Your task to perform on an android device: change the clock display to digital Image 0: 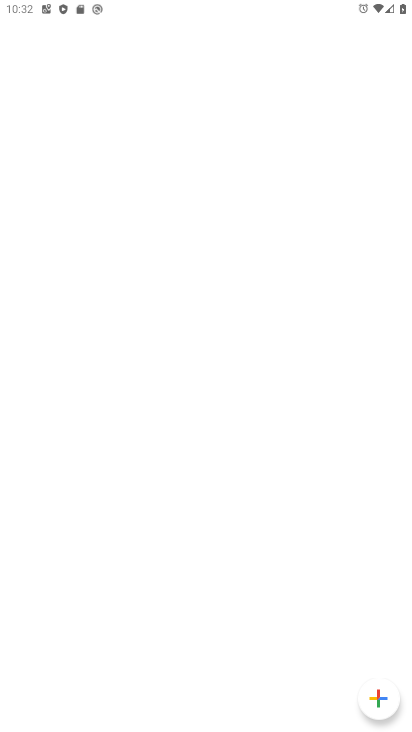
Step 0: press home button
Your task to perform on an android device: change the clock display to digital Image 1: 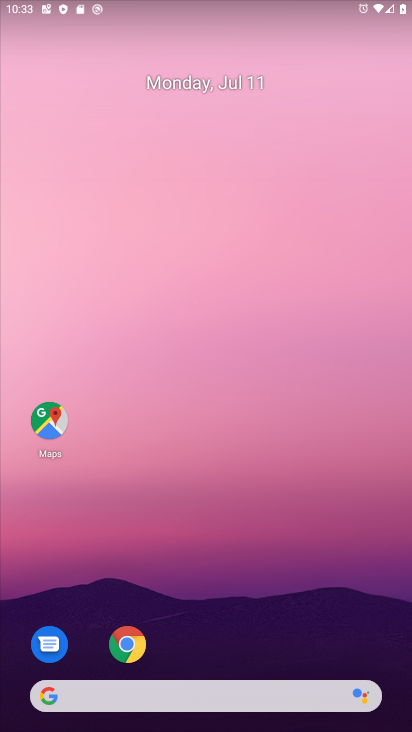
Step 1: drag from (214, 664) to (227, 42)
Your task to perform on an android device: change the clock display to digital Image 2: 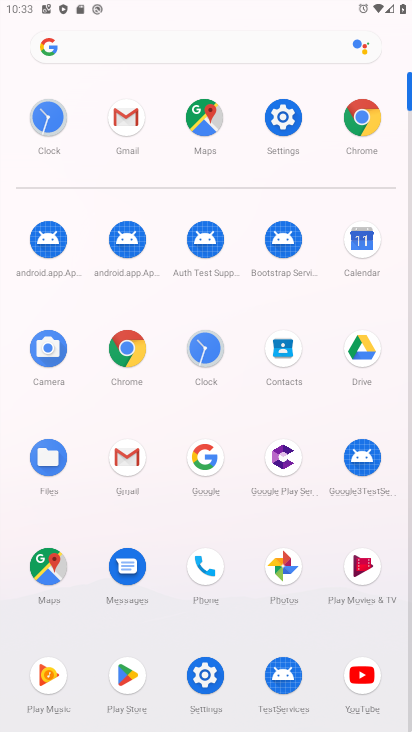
Step 2: click (201, 338)
Your task to perform on an android device: change the clock display to digital Image 3: 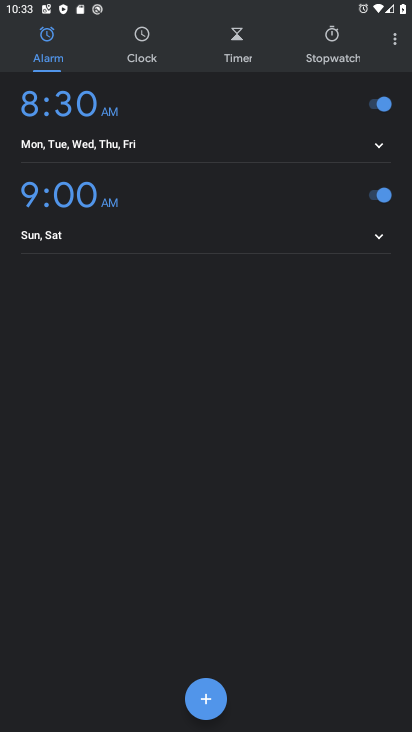
Step 3: click (390, 42)
Your task to perform on an android device: change the clock display to digital Image 4: 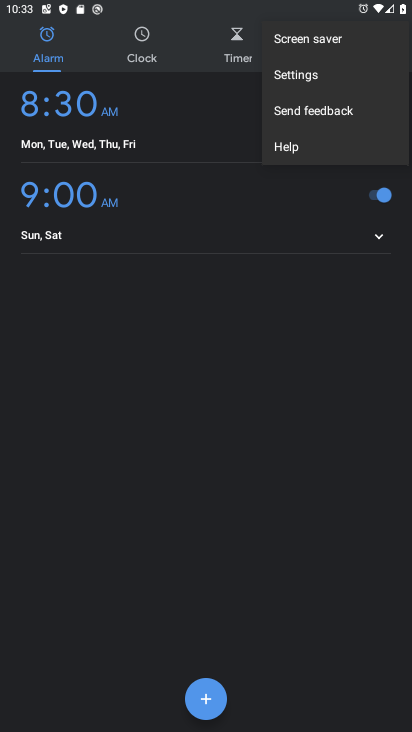
Step 4: click (322, 79)
Your task to perform on an android device: change the clock display to digital Image 5: 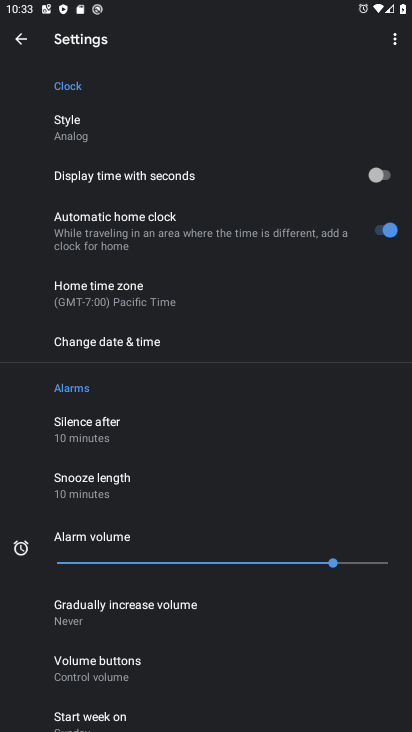
Step 5: click (120, 131)
Your task to perform on an android device: change the clock display to digital Image 6: 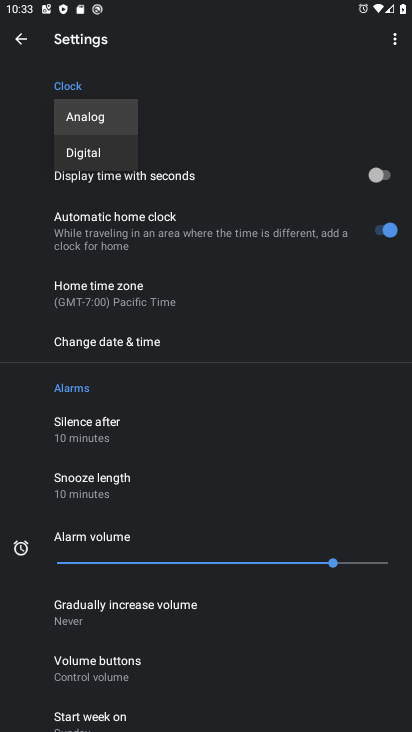
Step 6: click (110, 150)
Your task to perform on an android device: change the clock display to digital Image 7: 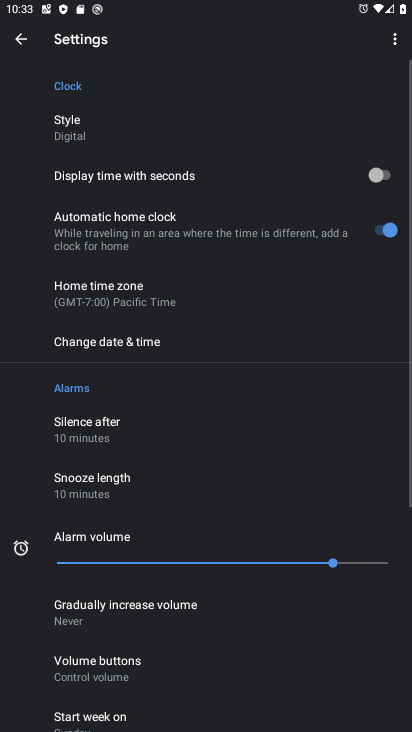
Step 7: task complete